Your task to perform on an android device: toggle notifications settings in the gmail app Image 0: 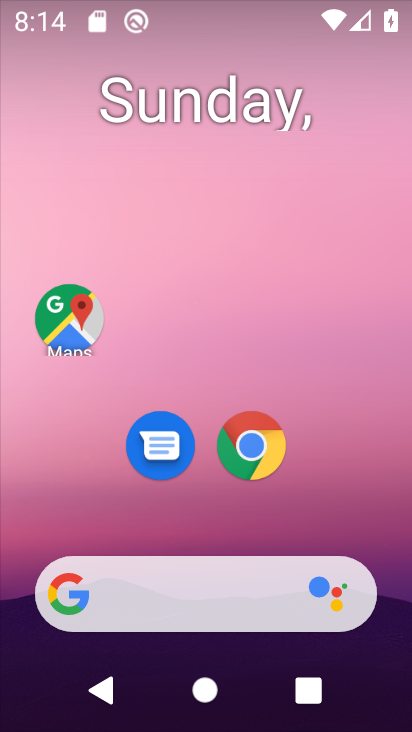
Step 0: drag from (396, 545) to (273, 112)
Your task to perform on an android device: toggle notifications settings in the gmail app Image 1: 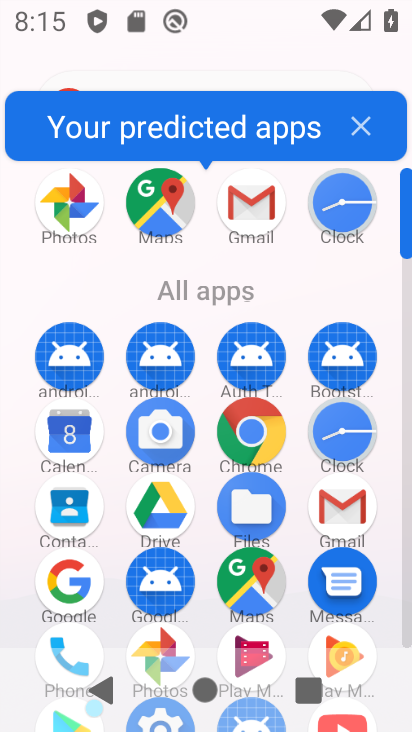
Step 1: click (347, 518)
Your task to perform on an android device: toggle notifications settings in the gmail app Image 2: 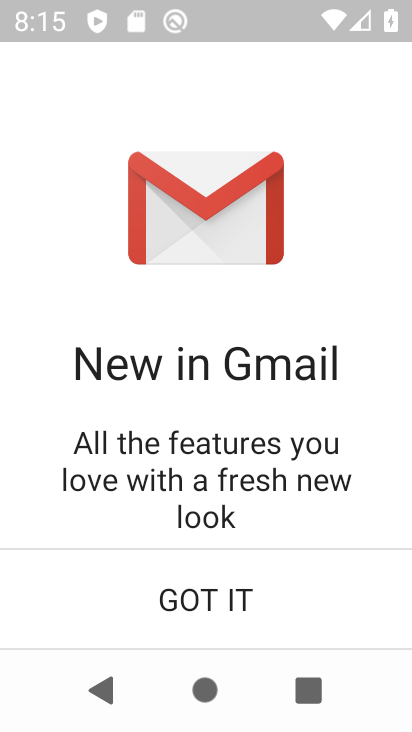
Step 2: click (214, 600)
Your task to perform on an android device: toggle notifications settings in the gmail app Image 3: 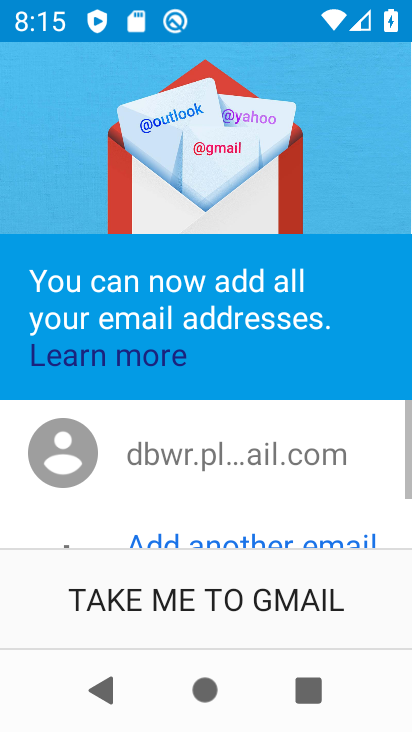
Step 3: click (214, 600)
Your task to perform on an android device: toggle notifications settings in the gmail app Image 4: 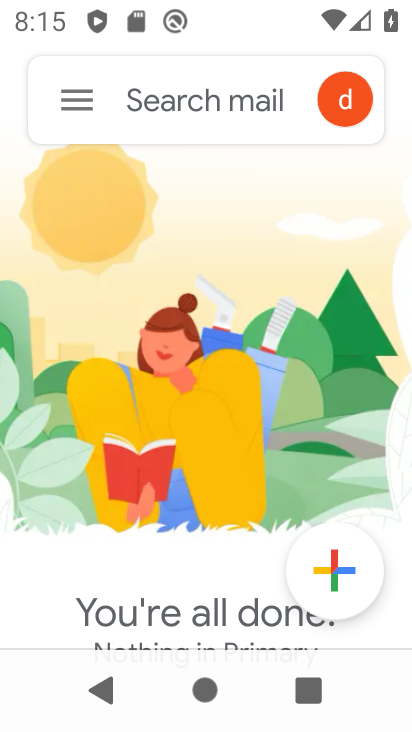
Step 4: click (78, 107)
Your task to perform on an android device: toggle notifications settings in the gmail app Image 5: 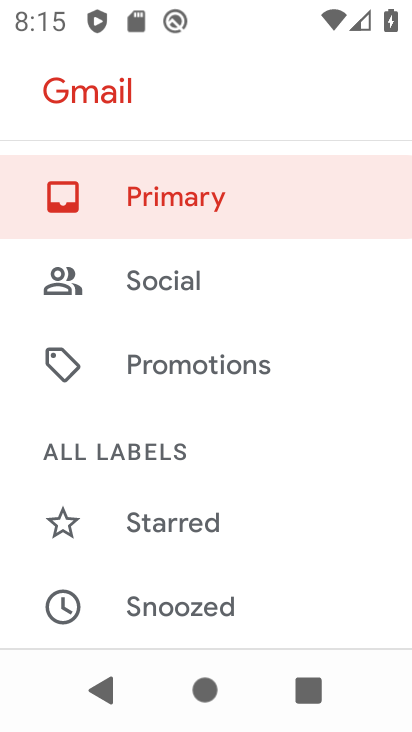
Step 5: drag from (280, 599) to (233, 233)
Your task to perform on an android device: toggle notifications settings in the gmail app Image 6: 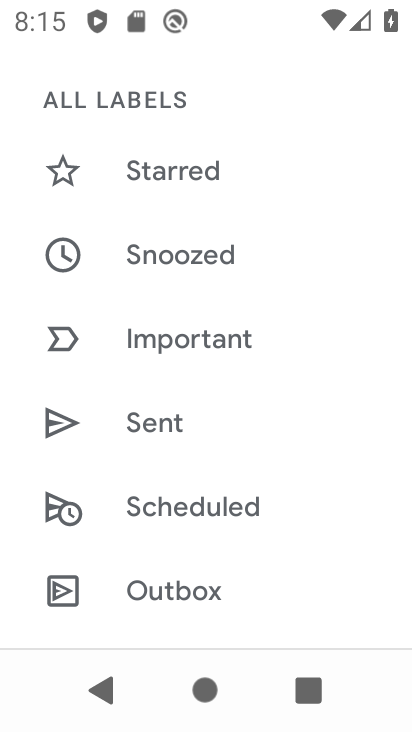
Step 6: drag from (309, 559) to (275, 66)
Your task to perform on an android device: toggle notifications settings in the gmail app Image 7: 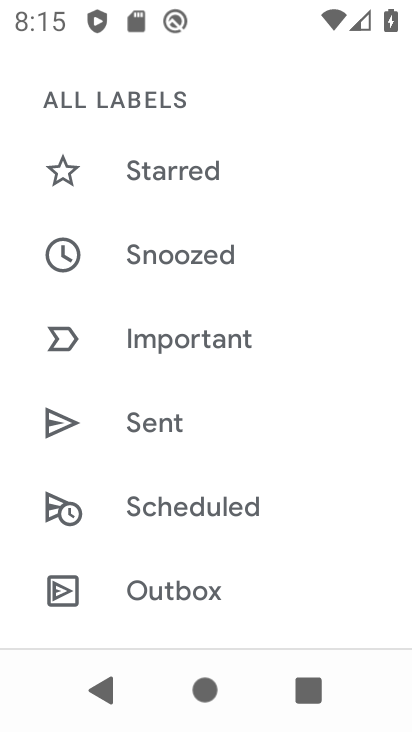
Step 7: drag from (385, 612) to (374, 118)
Your task to perform on an android device: toggle notifications settings in the gmail app Image 8: 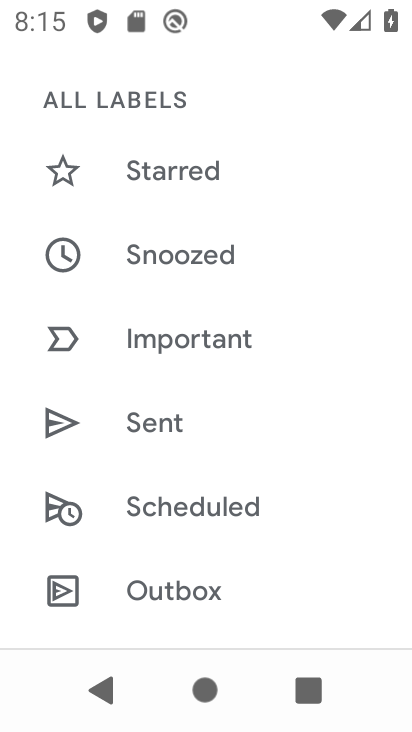
Step 8: drag from (274, 550) to (291, 160)
Your task to perform on an android device: toggle notifications settings in the gmail app Image 9: 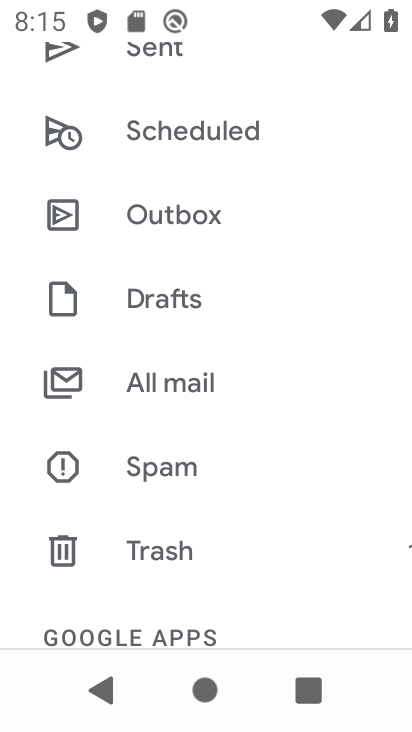
Step 9: drag from (240, 511) to (248, 130)
Your task to perform on an android device: toggle notifications settings in the gmail app Image 10: 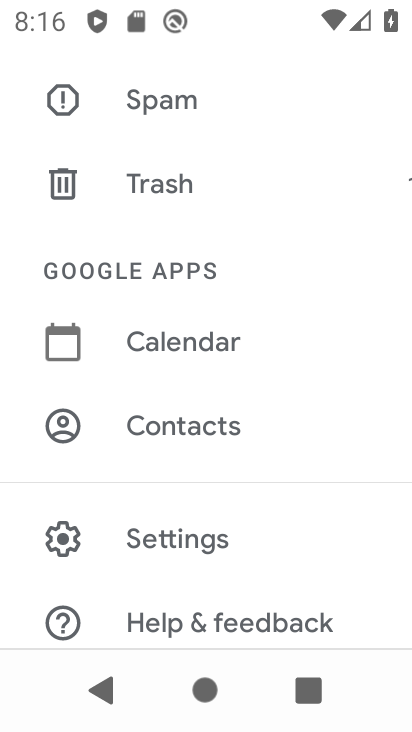
Step 10: click (217, 528)
Your task to perform on an android device: toggle notifications settings in the gmail app Image 11: 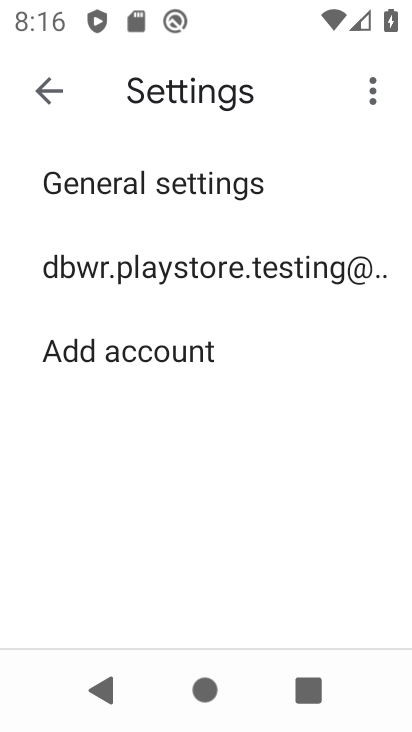
Step 11: click (284, 283)
Your task to perform on an android device: toggle notifications settings in the gmail app Image 12: 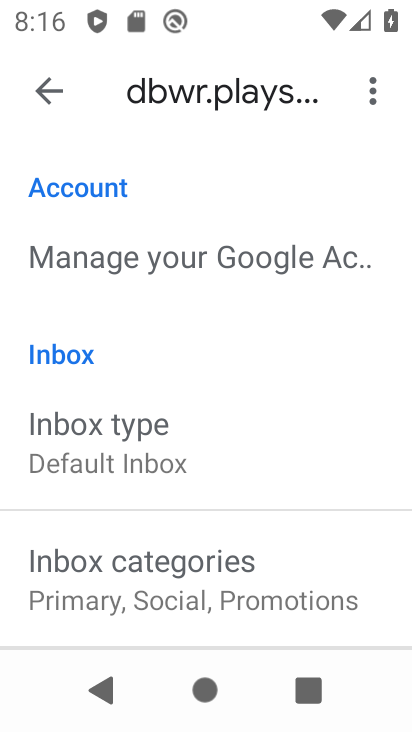
Step 12: drag from (264, 606) to (242, 228)
Your task to perform on an android device: toggle notifications settings in the gmail app Image 13: 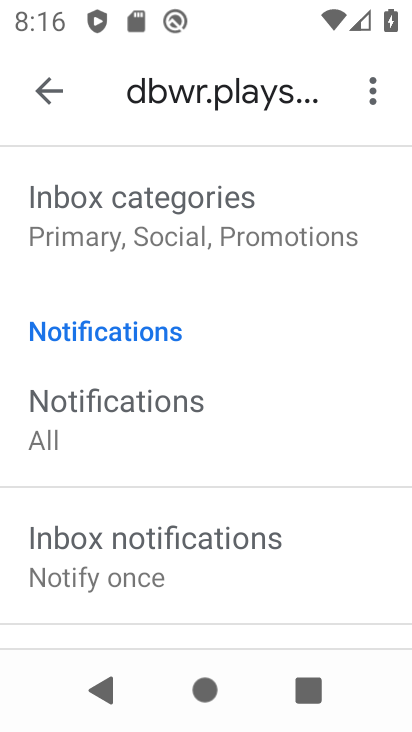
Step 13: drag from (284, 595) to (284, 274)
Your task to perform on an android device: toggle notifications settings in the gmail app Image 14: 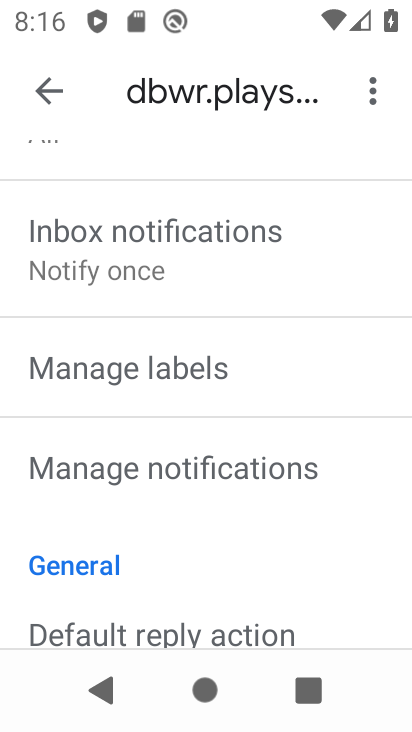
Step 14: click (295, 471)
Your task to perform on an android device: toggle notifications settings in the gmail app Image 15: 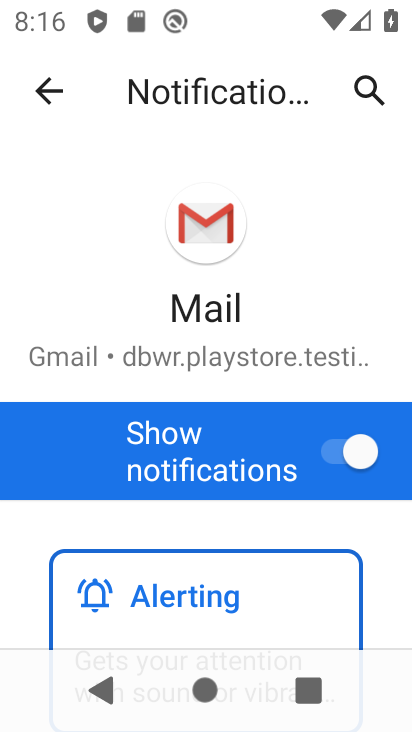
Step 15: drag from (338, 541) to (308, 281)
Your task to perform on an android device: toggle notifications settings in the gmail app Image 16: 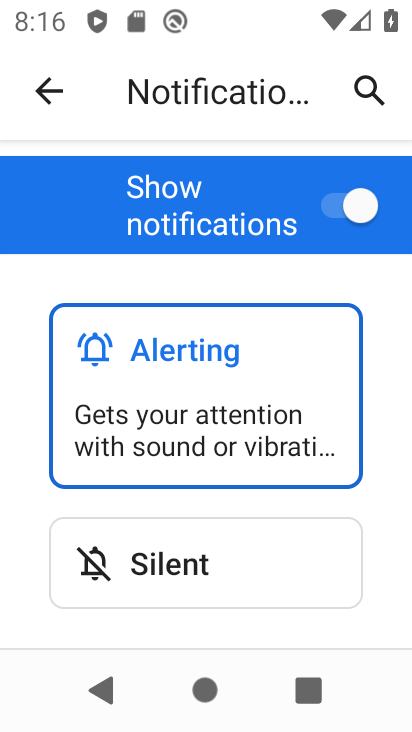
Step 16: click (317, 544)
Your task to perform on an android device: toggle notifications settings in the gmail app Image 17: 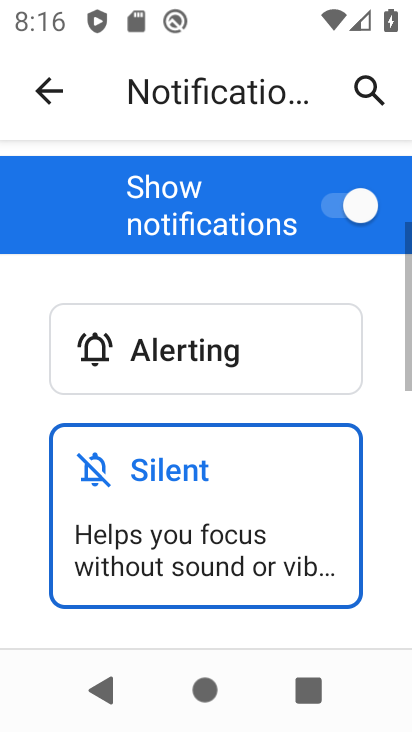
Step 17: drag from (384, 518) to (368, 302)
Your task to perform on an android device: toggle notifications settings in the gmail app Image 18: 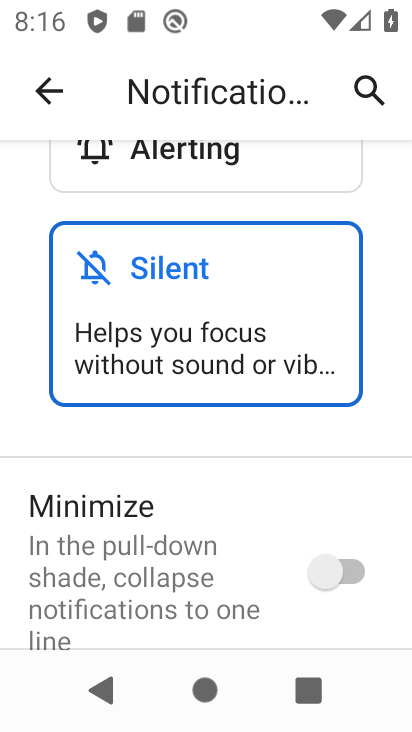
Step 18: click (354, 578)
Your task to perform on an android device: toggle notifications settings in the gmail app Image 19: 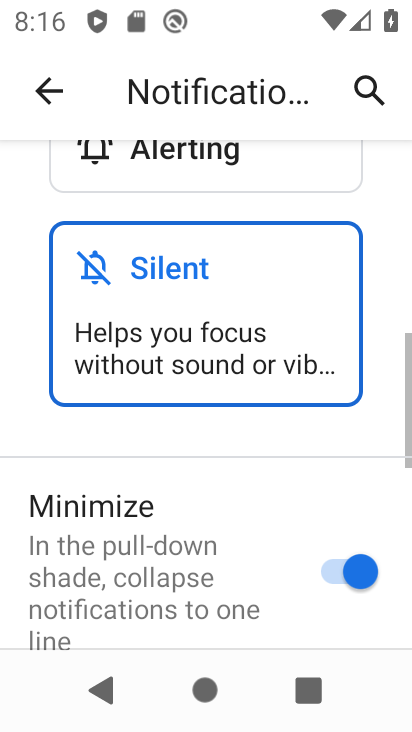
Step 19: task complete